Your task to perform on an android device: Toggle the flashlight Image 0: 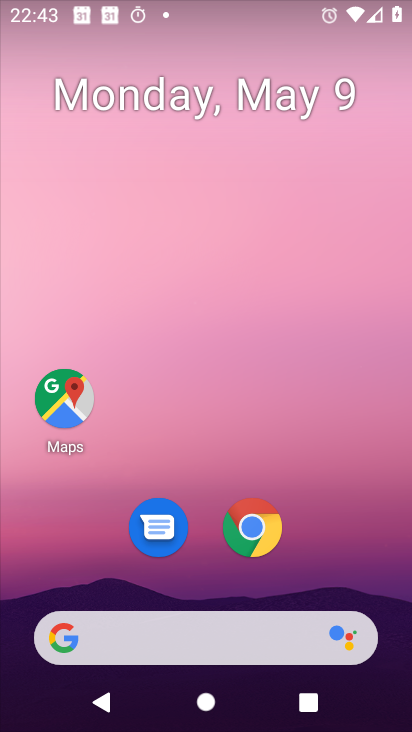
Step 0: drag from (212, 559) to (223, 33)
Your task to perform on an android device: Toggle the flashlight Image 1: 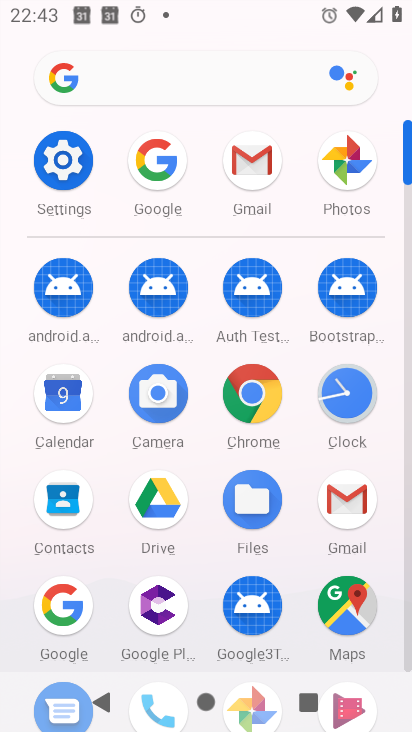
Step 1: click (62, 160)
Your task to perform on an android device: Toggle the flashlight Image 2: 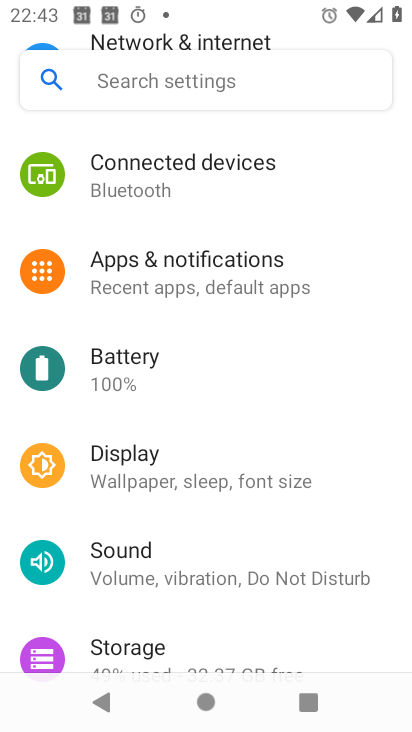
Step 2: click (194, 89)
Your task to perform on an android device: Toggle the flashlight Image 3: 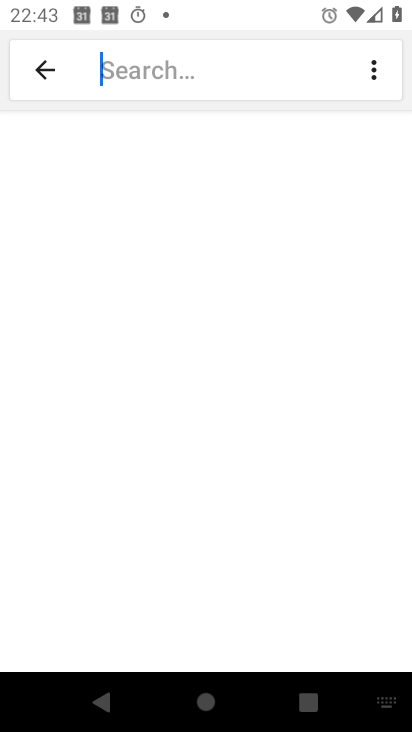
Step 3: type "flash"
Your task to perform on an android device: Toggle the flashlight Image 4: 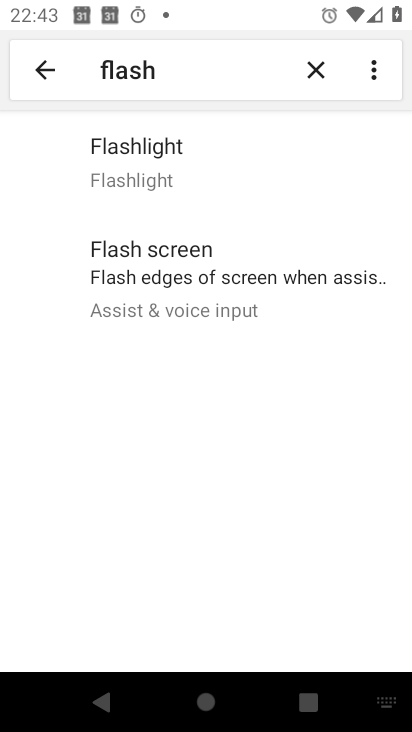
Step 4: task complete